Your task to perform on an android device: Open network settings Image 0: 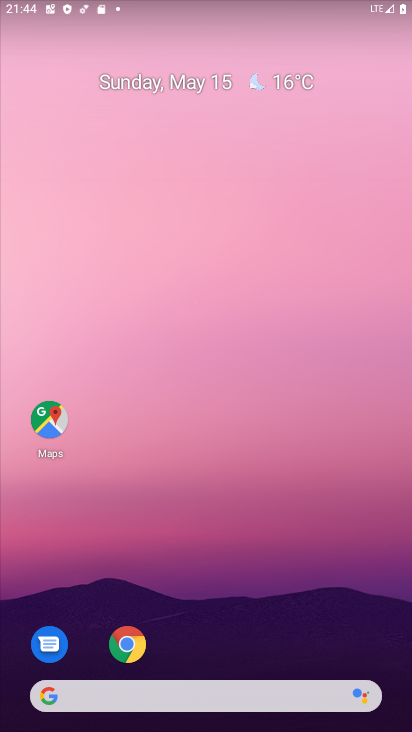
Step 0: drag from (187, 623) to (219, 178)
Your task to perform on an android device: Open network settings Image 1: 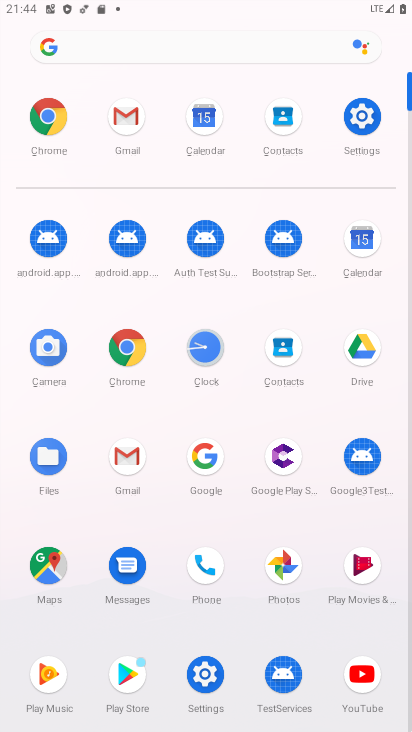
Step 1: click (362, 111)
Your task to perform on an android device: Open network settings Image 2: 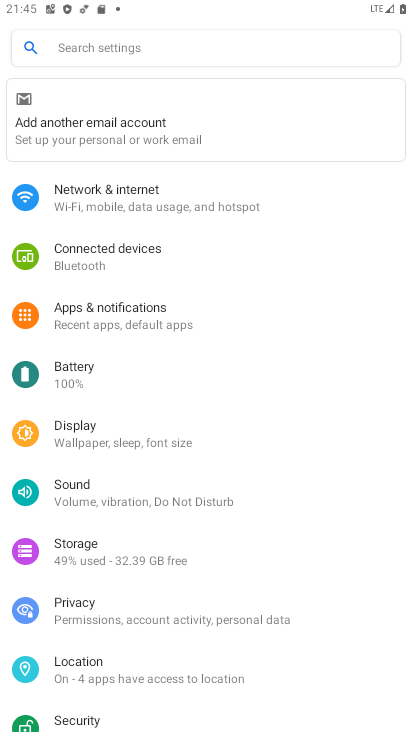
Step 2: click (148, 204)
Your task to perform on an android device: Open network settings Image 3: 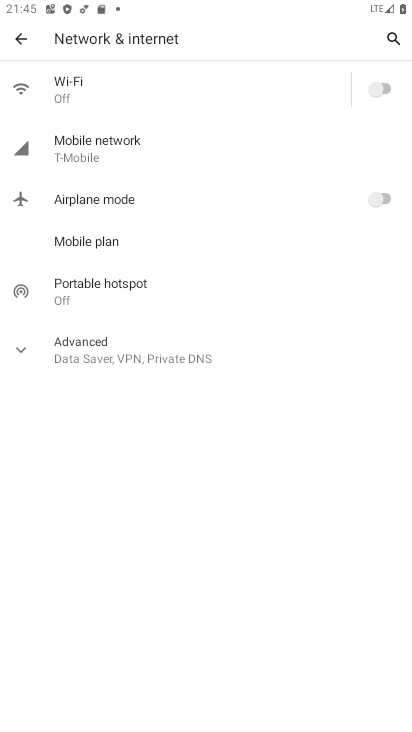
Step 3: task complete